Your task to perform on an android device: set the stopwatch Image 0: 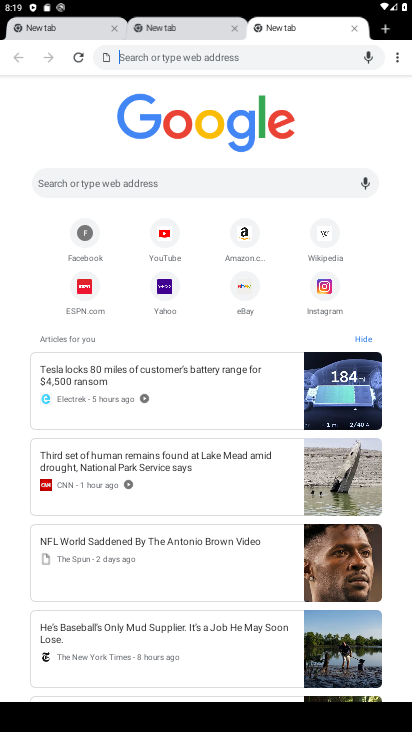
Step 0: click (247, 289)
Your task to perform on an android device: set the stopwatch Image 1: 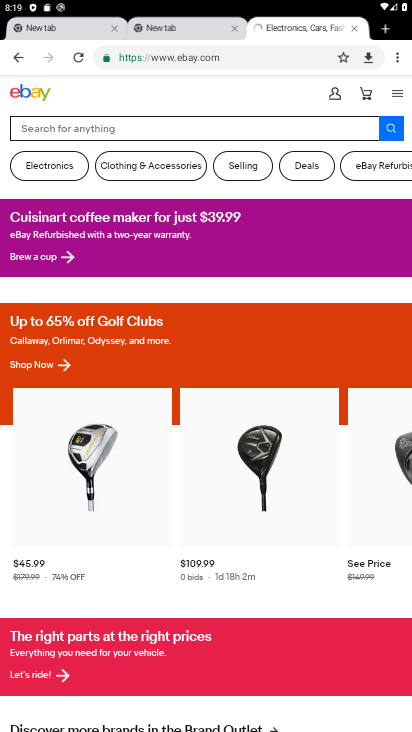
Step 1: task complete